Your task to perform on an android device: check android version Image 0: 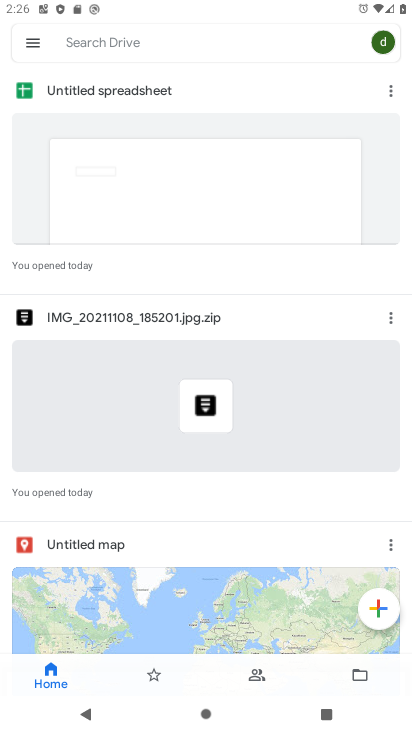
Step 0: press home button
Your task to perform on an android device: check android version Image 1: 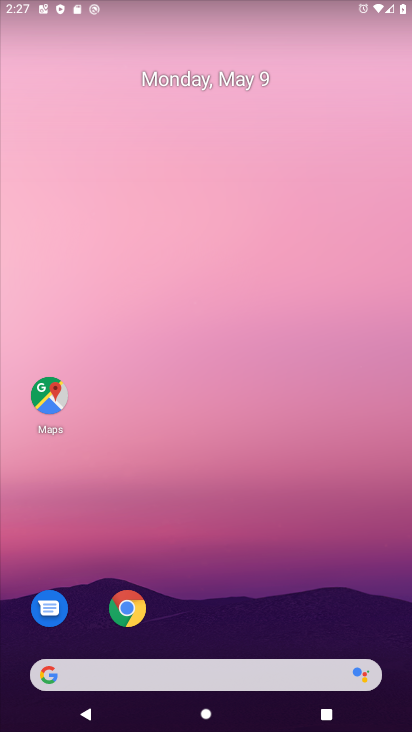
Step 1: drag from (210, 627) to (247, 2)
Your task to perform on an android device: check android version Image 2: 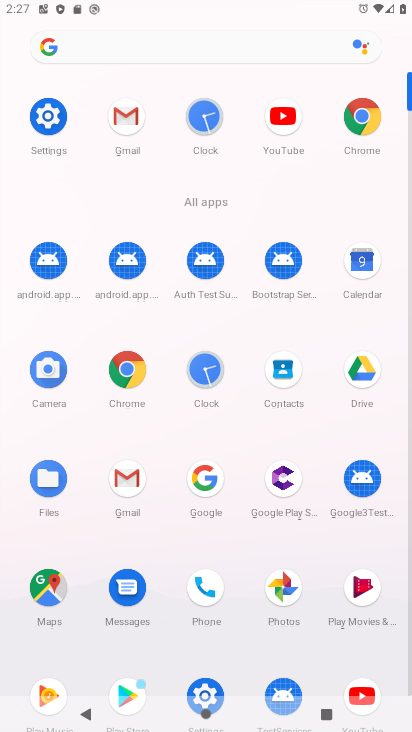
Step 2: click (45, 129)
Your task to perform on an android device: check android version Image 3: 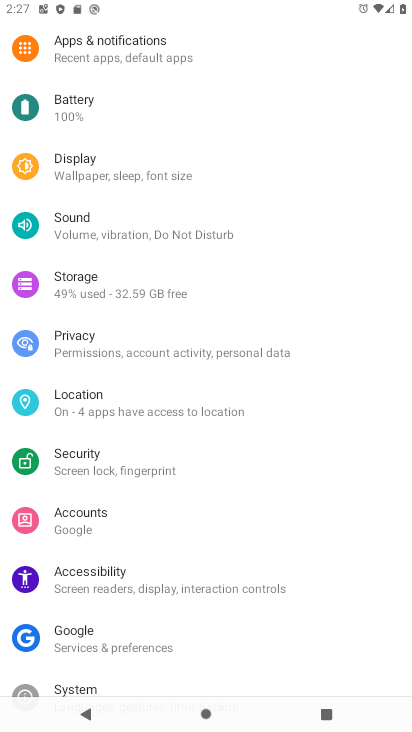
Step 3: drag from (132, 682) to (233, 296)
Your task to perform on an android device: check android version Image 4: 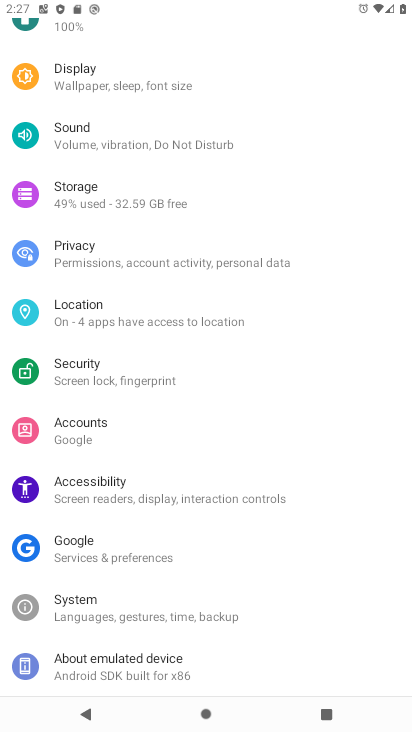
Step 4: click (163, 675)
Your task to perform on an android device: check android version Image 5: 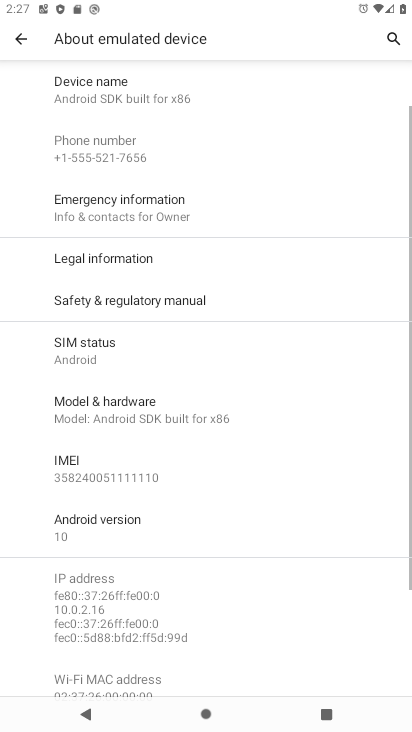
Step 5: click (98, 526)
Your task to perform on an android device: check android version Image 6: 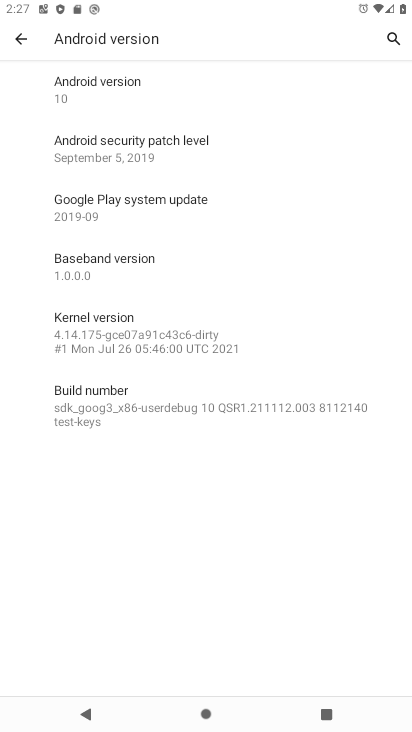
Step 6: task complete